Your task to perform on an android device: Open the web browser Image 0: 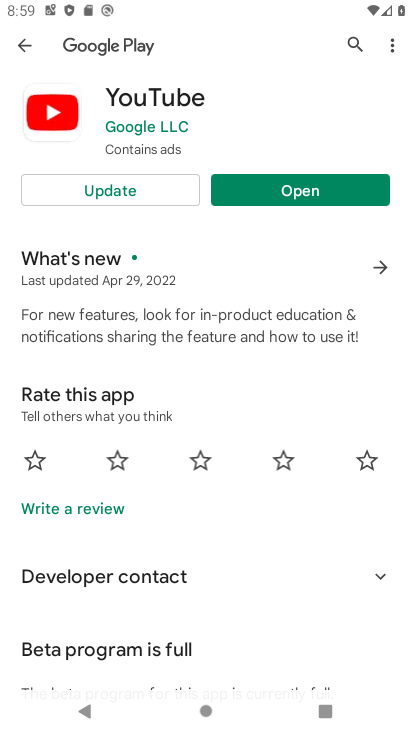
Step 0: press home button
Your task to perform on an android device: Open the web browser Image 1: 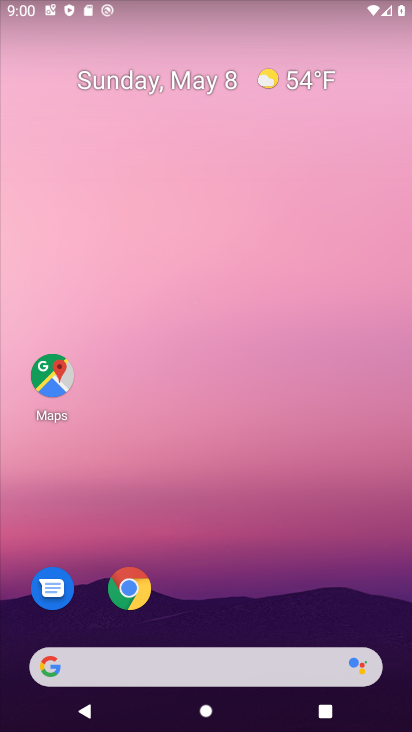
Step 1: drag from (72, 505) to (381, 92)
Your task to perform on an android device: Open the web browser Image 2: 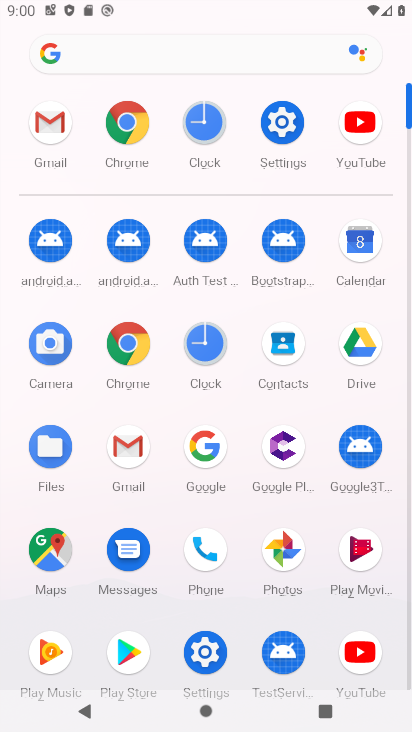
Step 2: click (134, 129)
Your task to perform on an android device: Open the web browser Image 3: 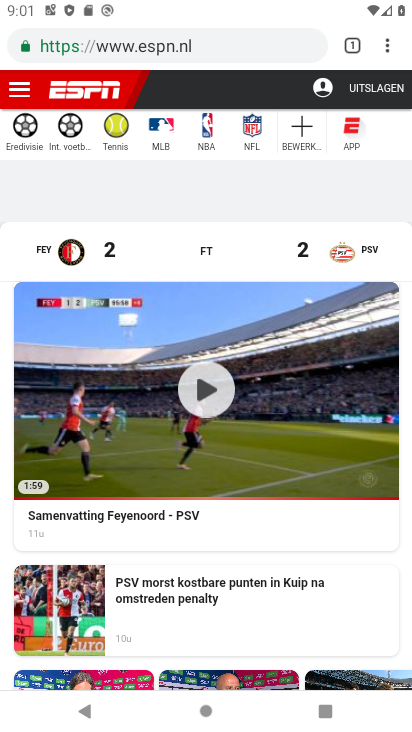
Step 3: task complete